Your task to perform on an android device: change the upload size in google photos Image 0: 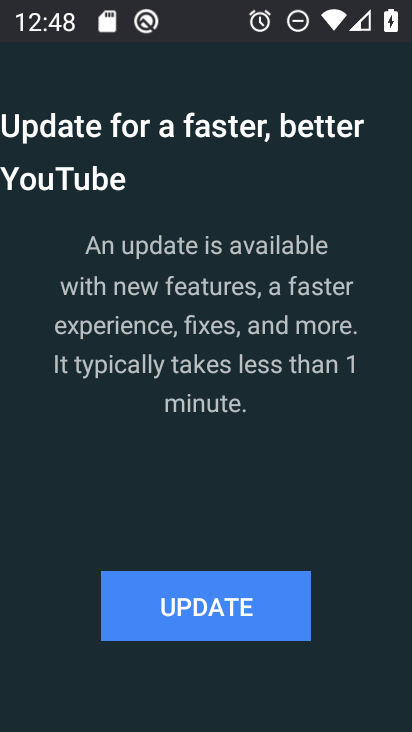
Step 0: press home button
Your task to perform on an android device: change the upload size in google photos Image 1: 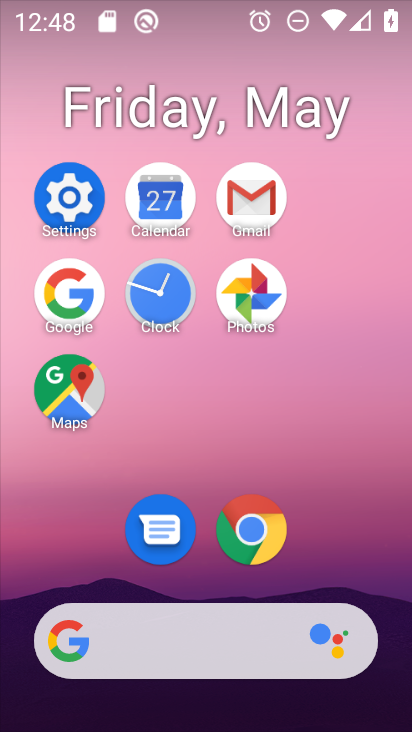
Step 1: click (285, 291)
Your task to perform on an android device: change the upload size in google photos Image 2: 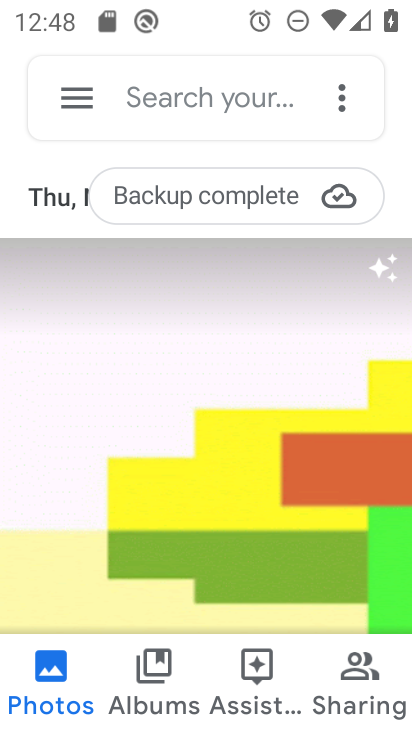
Step 2: click (78, 119)
Your task to perform on an android device: change the upload size in google photos Image 3: 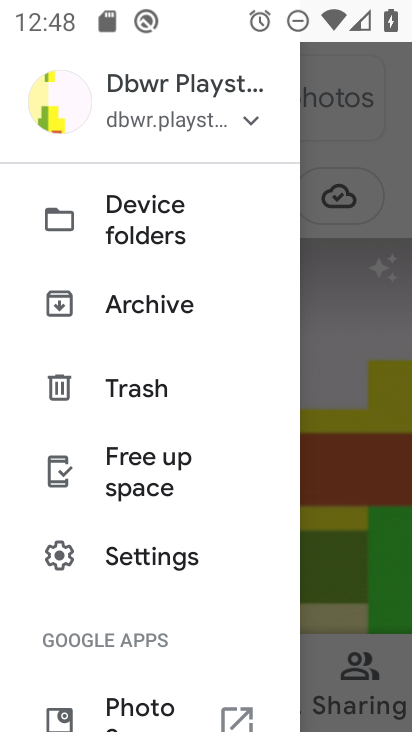
Step 3: click (189, 567)
Your task to perform on an android device: change the upload size in google photos Image 4: 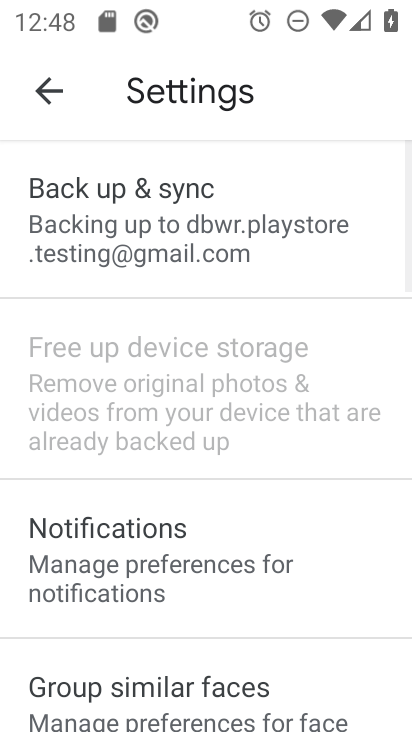
Step 4: click (275, 247)
Your task to perform on an android device: change the upload size in google photos Image 5: 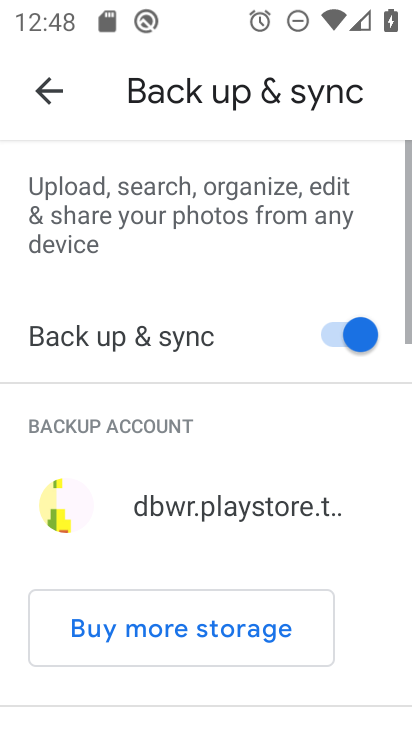
Step 5: drag from (291, 596) to (304, 179)
Your task to perform on an android device: change the upload size in google photos Image 6: 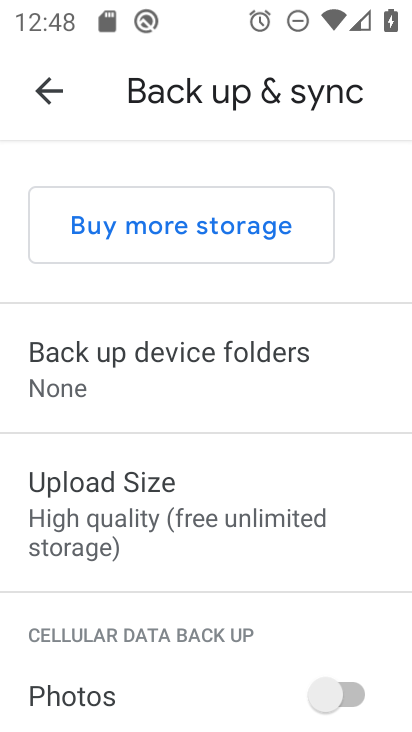
Step 6: click (326, 474)
Your task to perform on an android device: change the upload size in google photos Image 7: 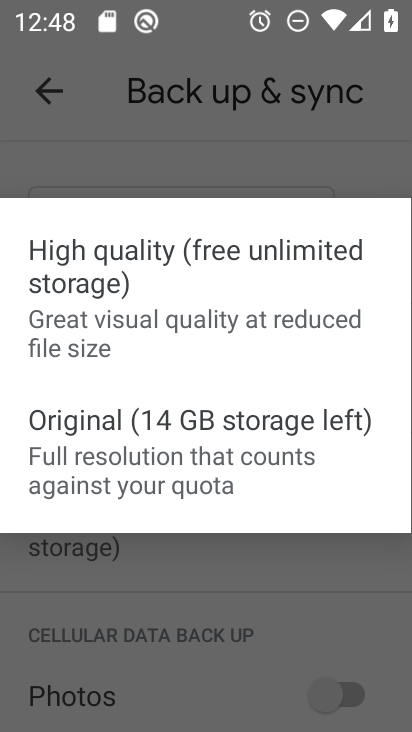
Step 7: click (277, 458)
Your task to perform on an android device: change the upload size in google photos Image 8: 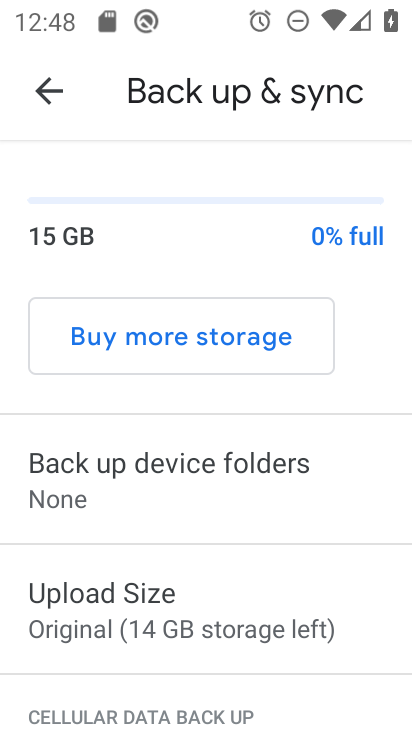
Step 8: task complete